Your task to perform on an android device: Search for the new ikea dresser Image 0: 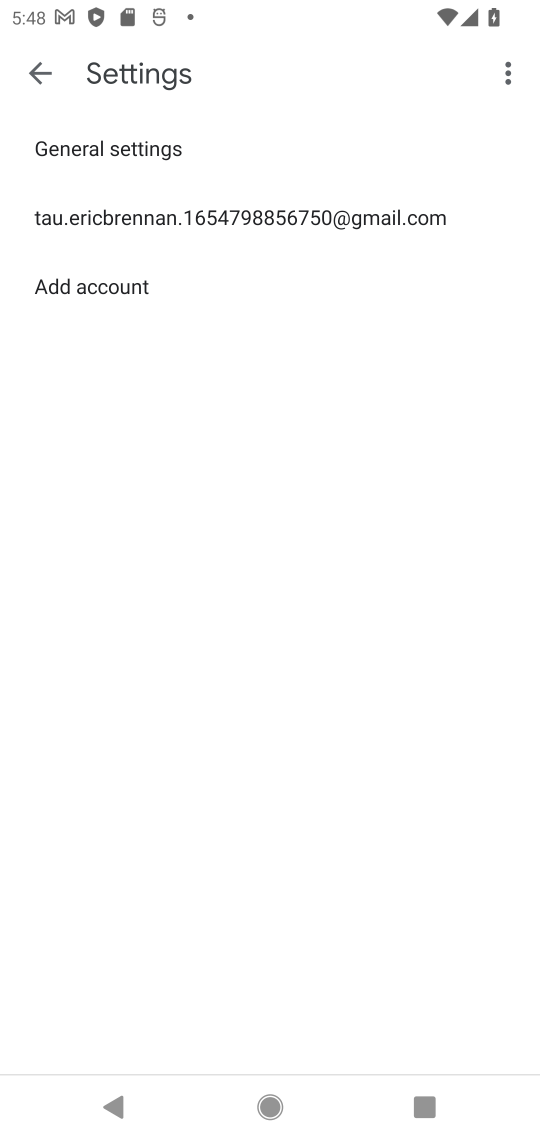
Step 0: press home button
Your task to perform on an android device: Search for the new ikea dresser Image 1: 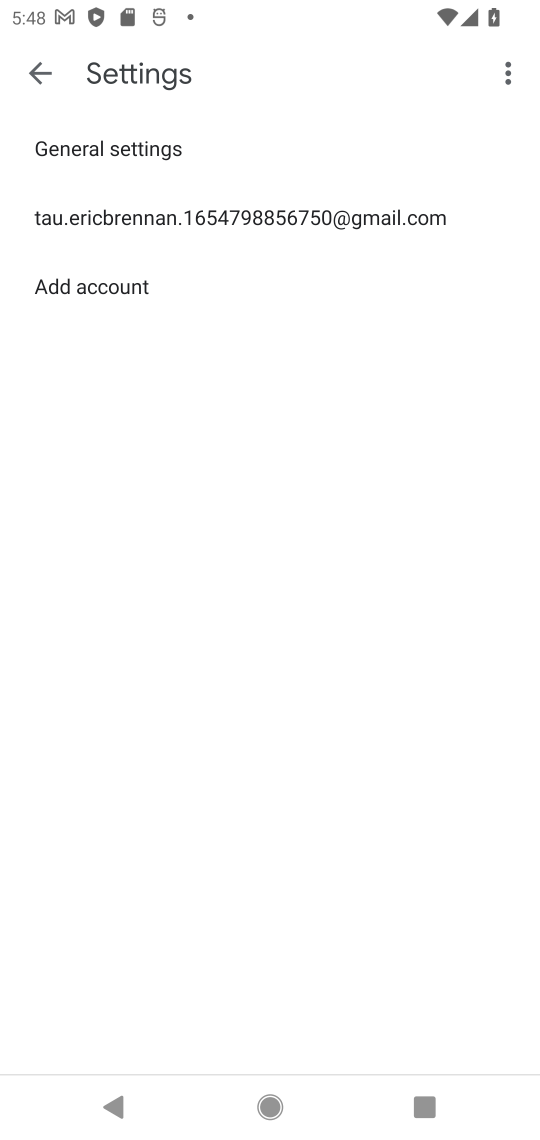
Step 1: press home button
Your task to perform on an android device: Search for the new ikea dresser Image 2: 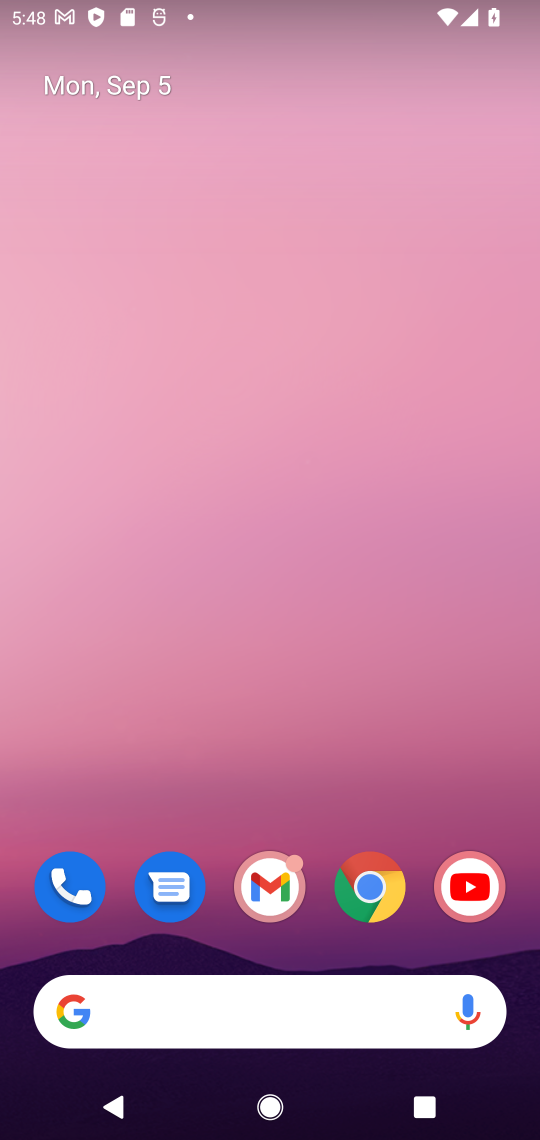
Step 2: drag from (215, 779) to (354, 26)
Your task to perform on an android device: Search for the new ikea dresser Image 3: 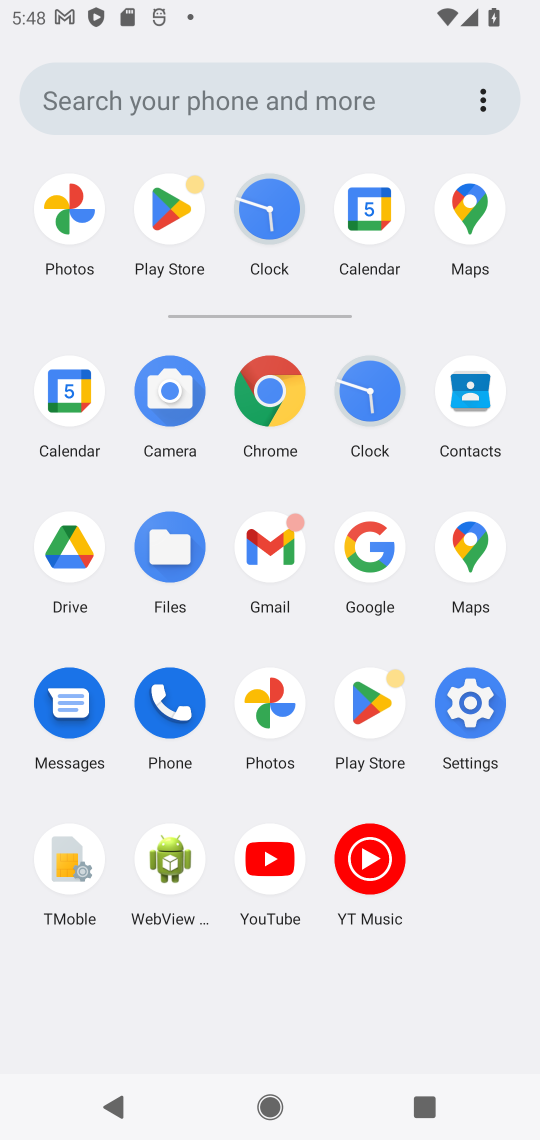
Step 3: click (278, 397)
Your task to perform on an android device: Search for the new ikea dresser Image 4: 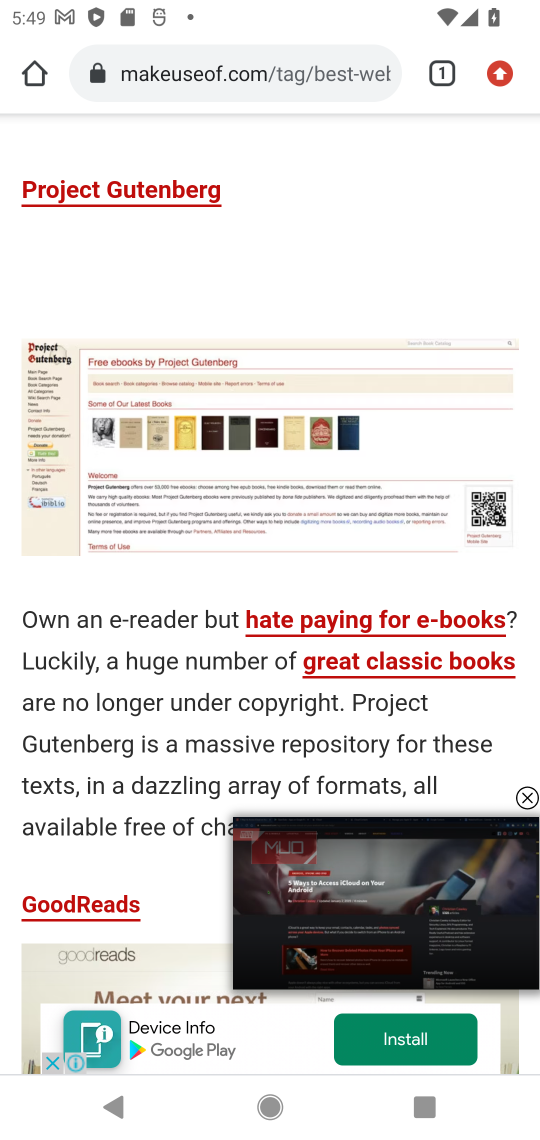
Step 4: click (336, 73)
Your task to perform on an android device: Search for the new ikea dresser Image 5: 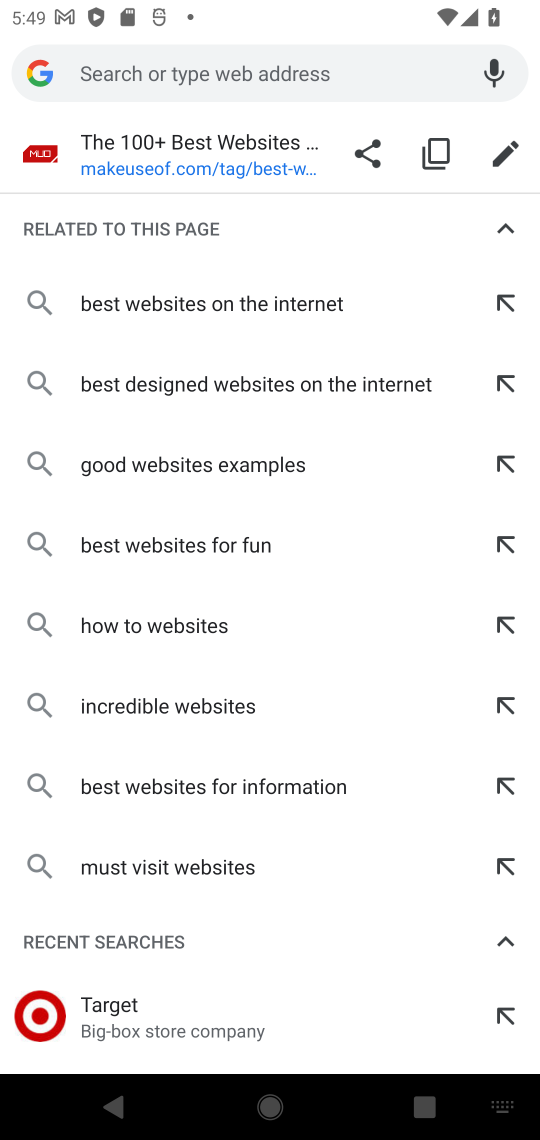
Step 5: type "new ikea dresser"
Your task to perform on an android device: Search for the new ikea dresser Image 6: 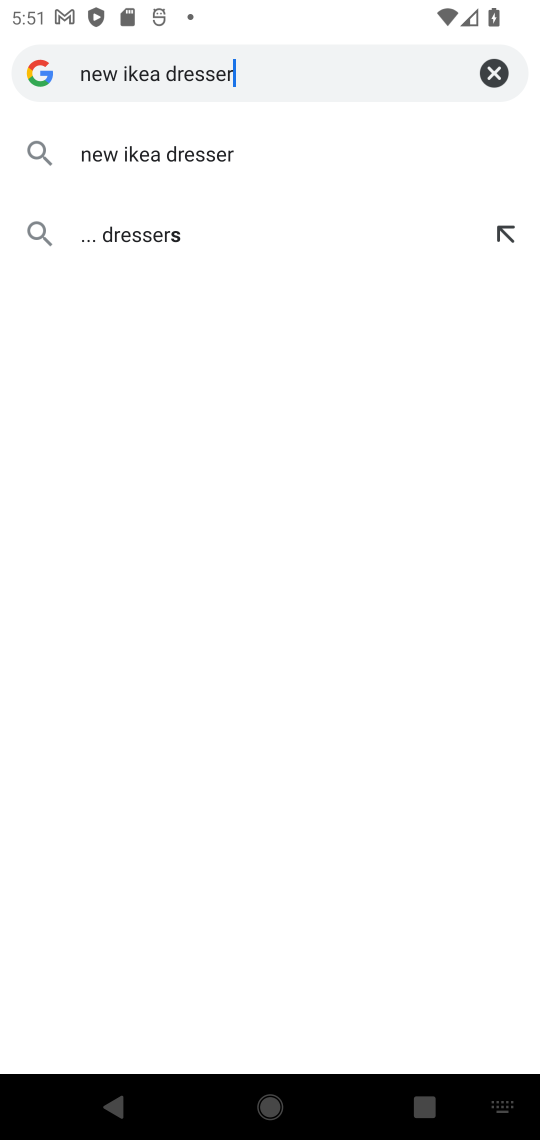
Step 6: press enter
Your task to perform on an android device: Search for the new ikea dresser Image 7: 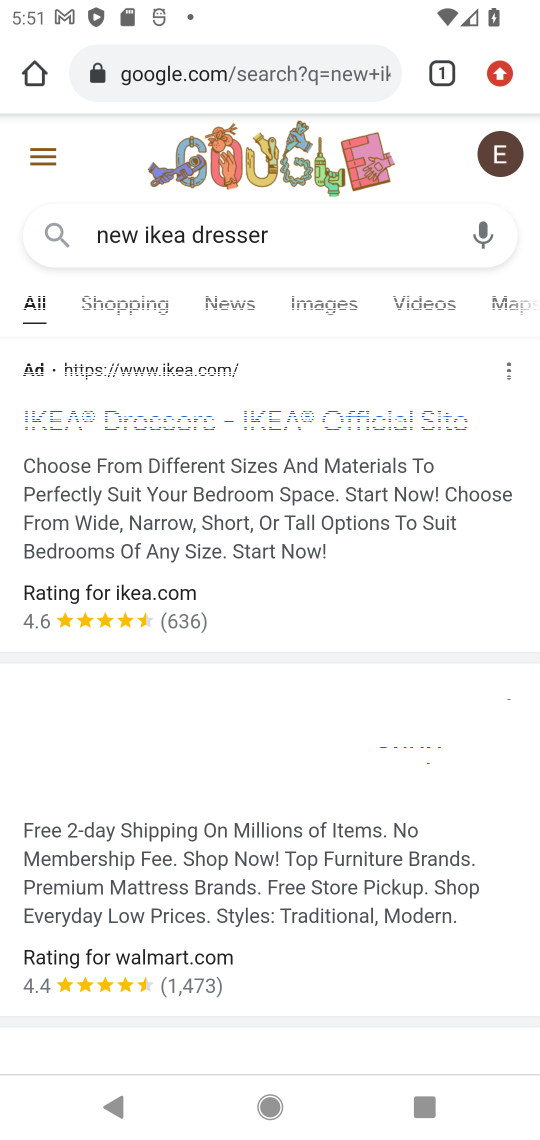
Step 7: drag from (362, 1020) to (325, 277)
Your task to perform on an android device: Search for the new ikea dresser Image 8: 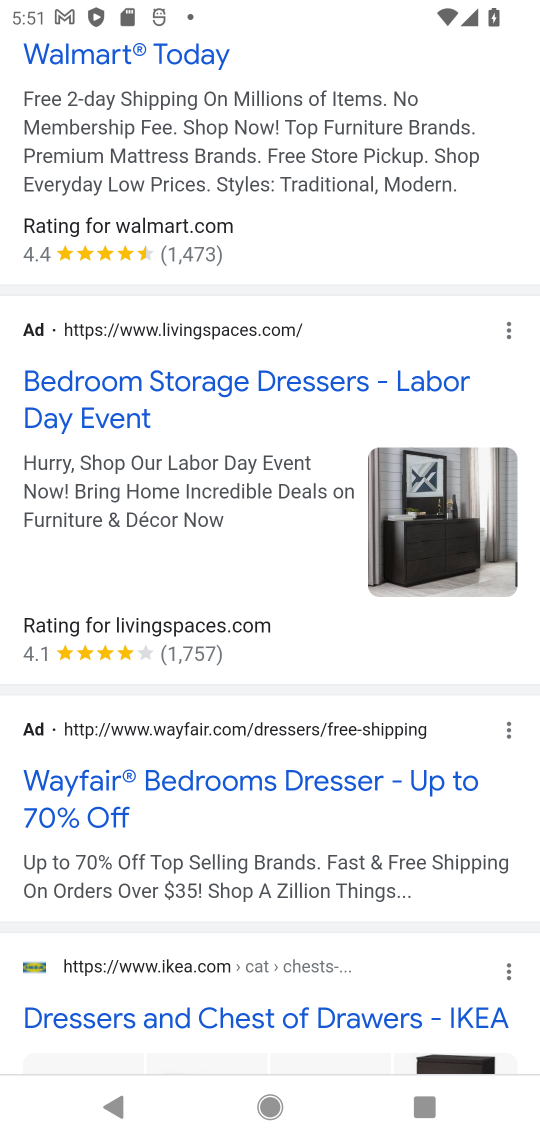
Step 8: drag from (271, 874) to (291, 363)
Your task to perform on an android device: Search for the new ikea dresser Image 9: 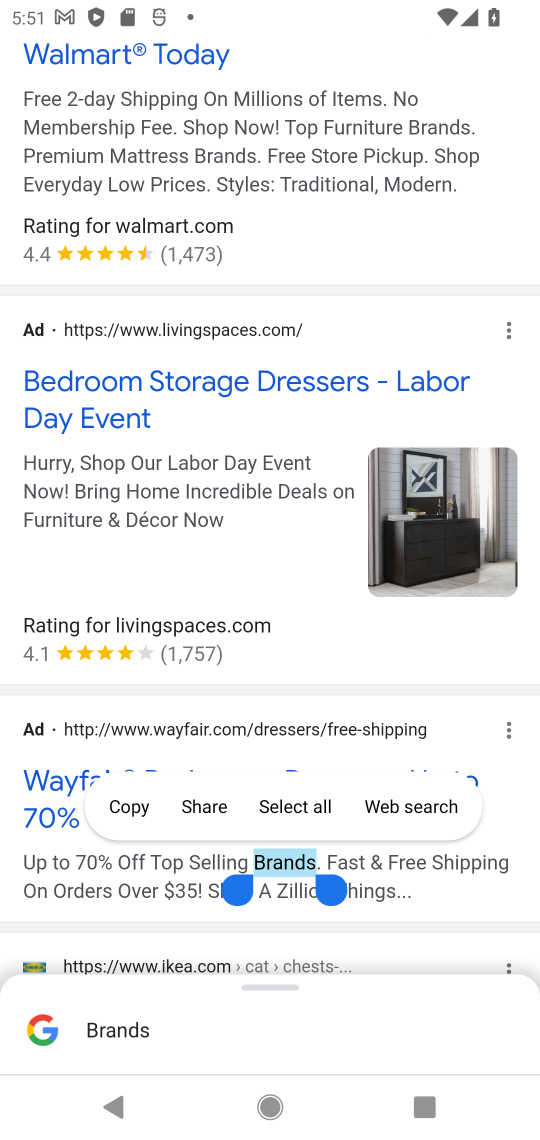
Step 9: click (449, 889)
Your task to perform on an android device: Search for the new ikea dresser Image 10: 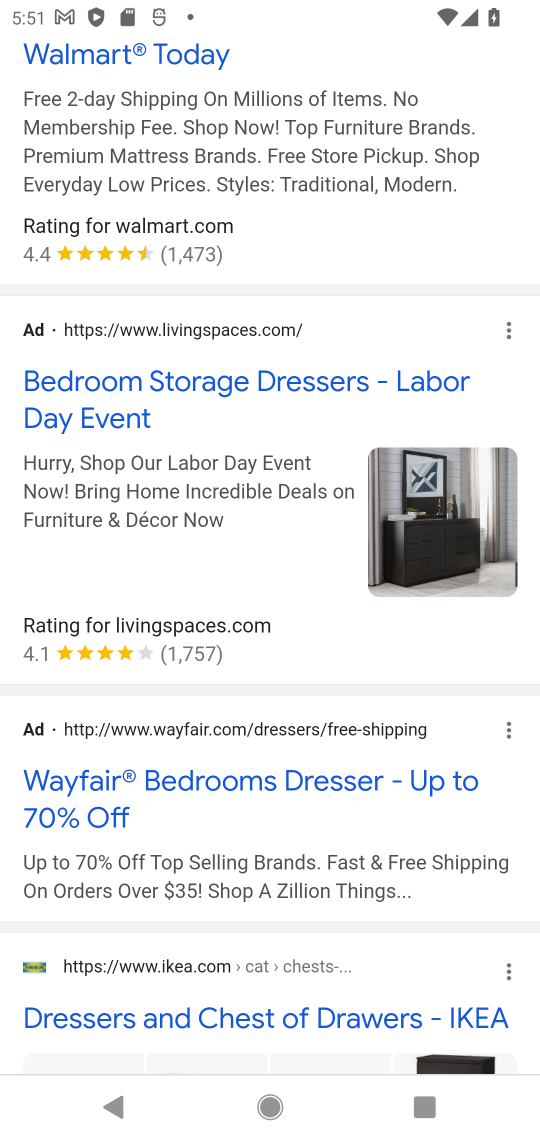
Step 10: click (245, 1011)
Your task to perform on an android device: Search for the new ikea dresser Image 11: 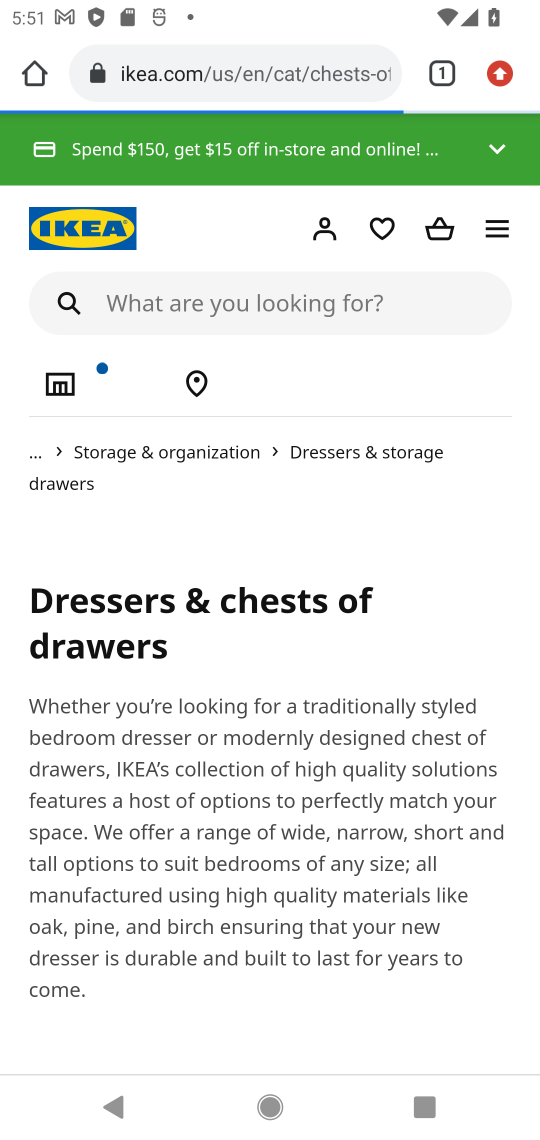
Step 11: task complete